Your task to perform on an android device: Open sound settings Image 0: 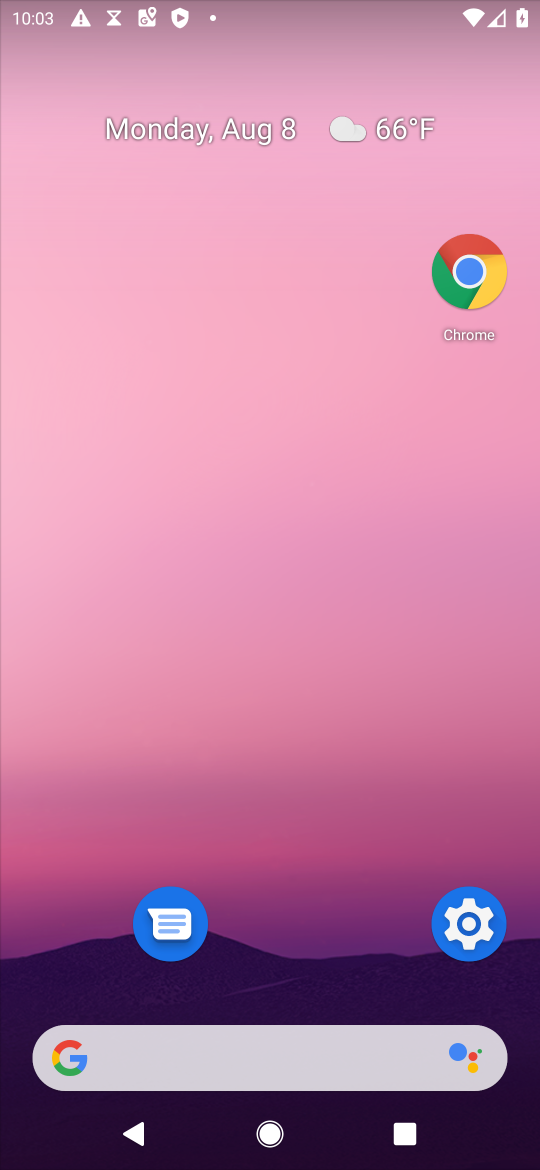
Step 0: press home button
Your task to perform on an android device: Open sound settings Image 1: 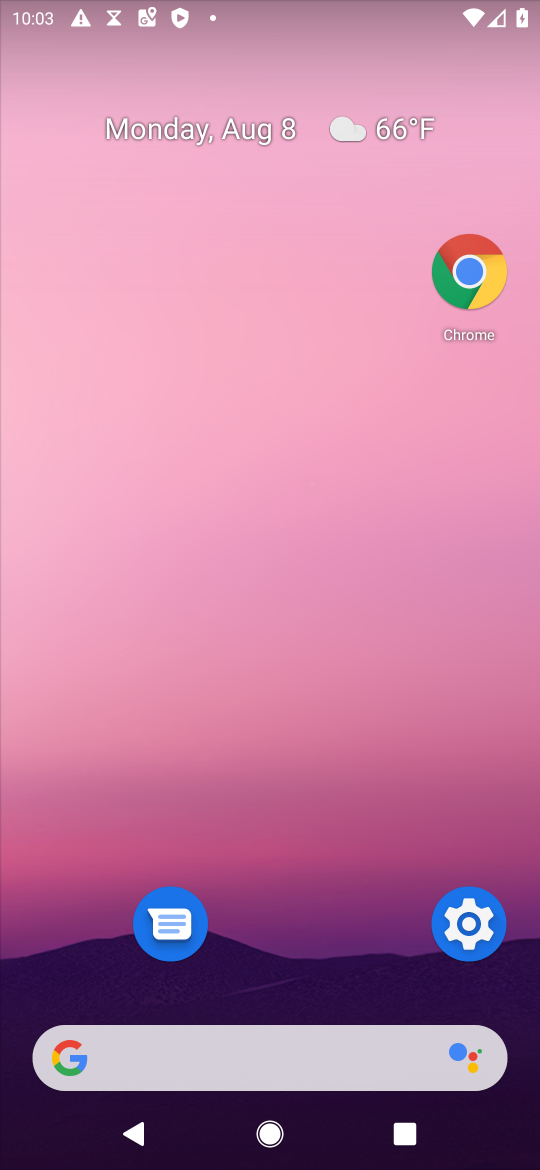
Step 1: click (463, 948)
Your task to perform on an android device: Open sound settings Image 2: 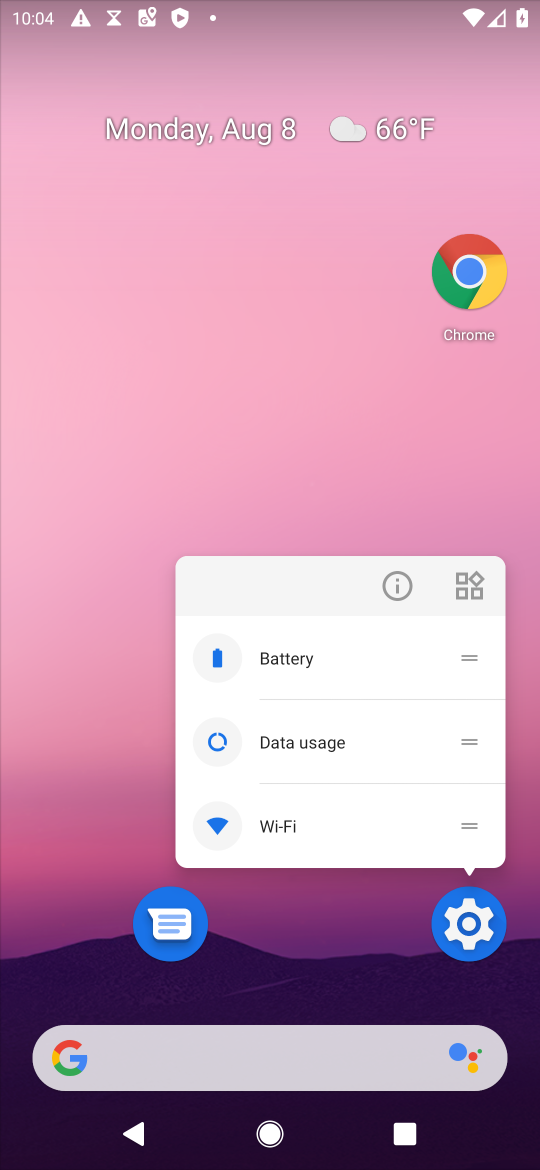
Step 2: click (498, 935)
Your task to perform on an android device: Open sound settings Image 3: 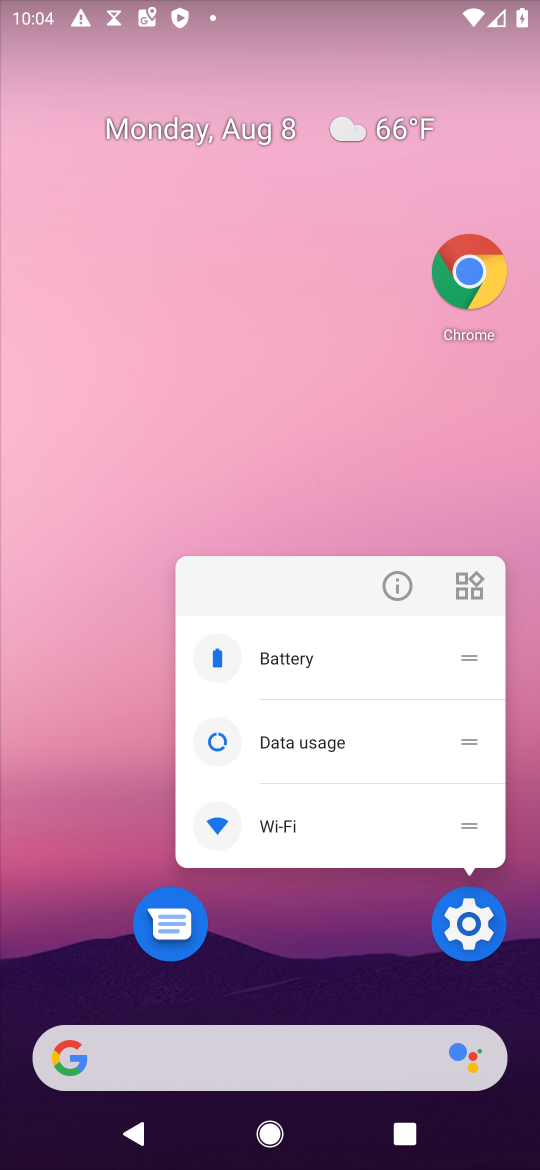
Step 3: click (487, 941)
Your task to perform on an android device: Open sound settings Image 4: 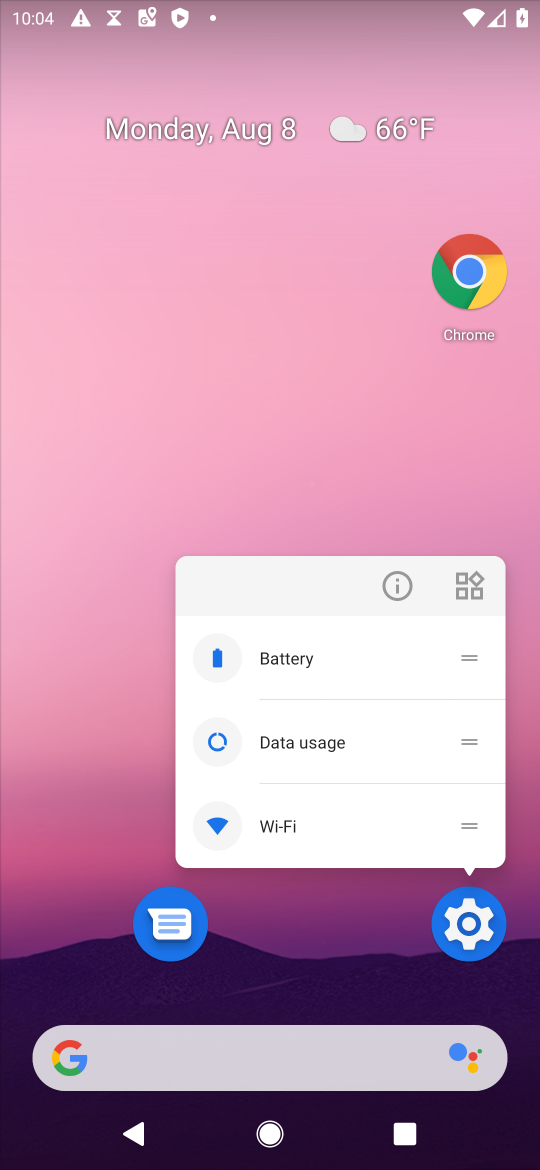
Step 4: click (487, 941)
Your task to perform on an android device: Open sound settings Image 5: 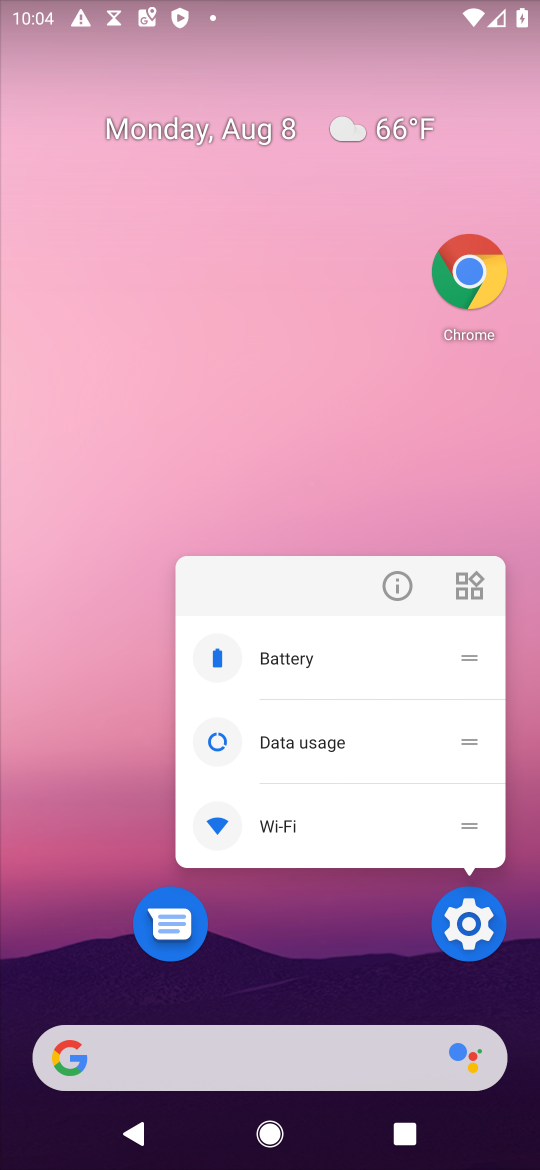
Step 5: click (448, 916)
Your task to perform on an android device: Open sound settings Image 6: 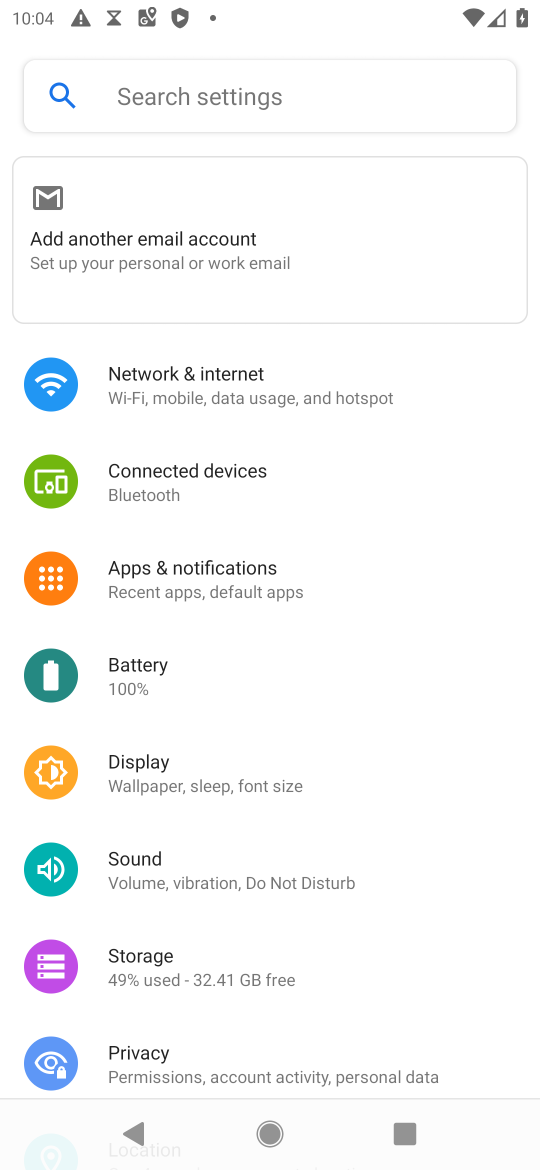
Step 6: click (148, 867)
Your task to perform on an android device: Open sound settings Image 7: 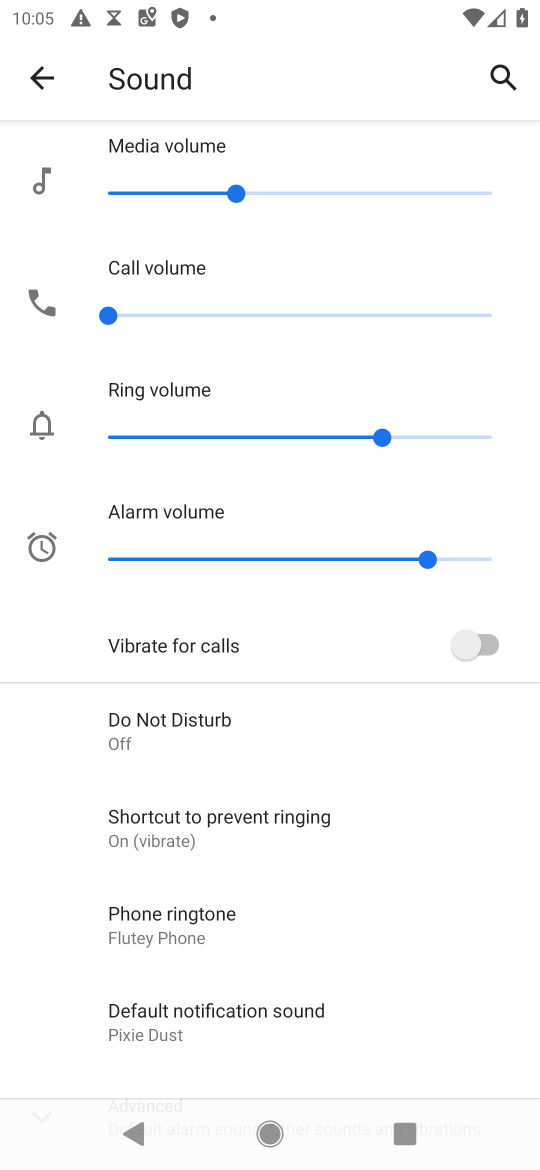
Step 7: task complete